Your task to perform on an android device: turn off airplane mode Image 0: 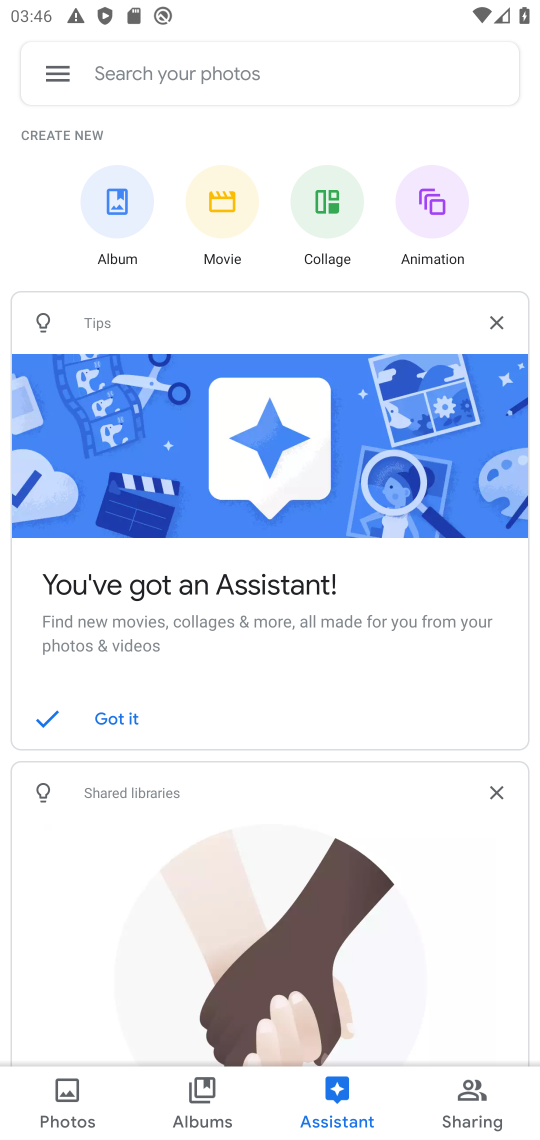
Step 0: press home button
Your task to perform on an android device: turn off airplane mode Image 1: 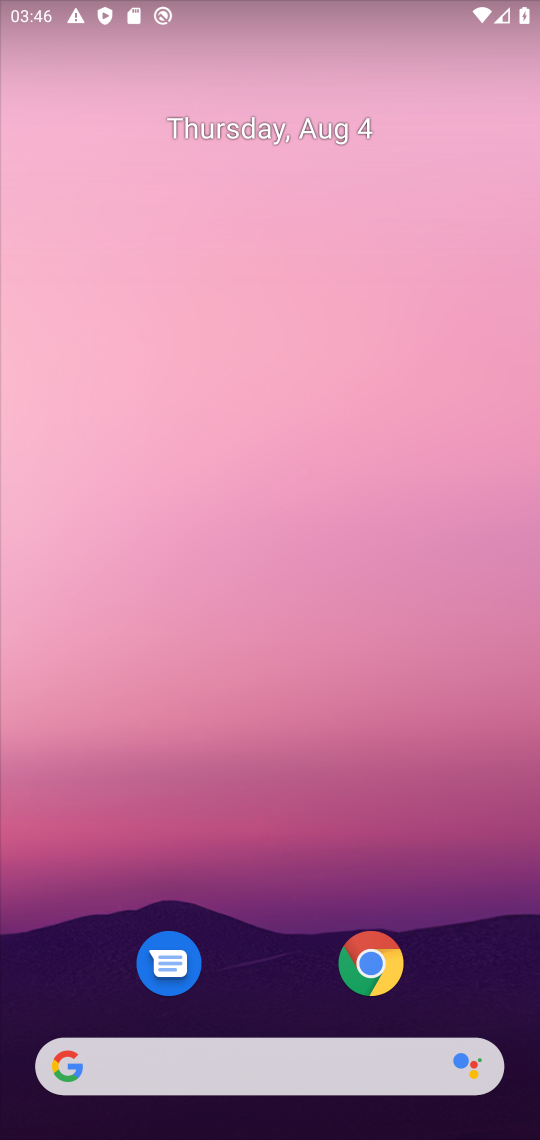
Step 1: drag from (297, 988) to (369, 10)
Your task to perform on an android device: turn off airplane mode Image 2: 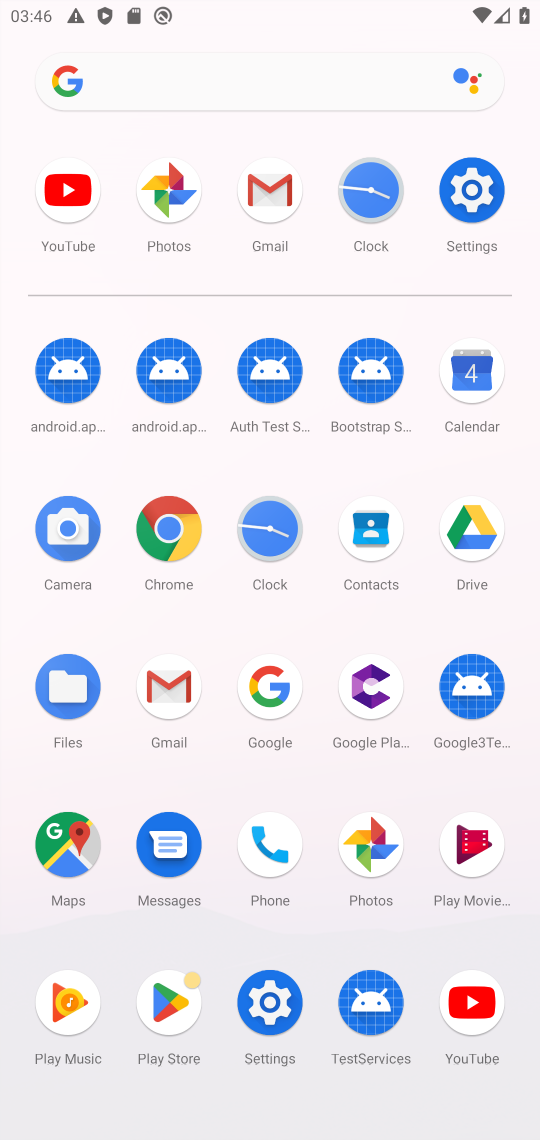
Step 2: click (459, 190)
Your task to perform on an android device: turn off airplane mode Image 3: 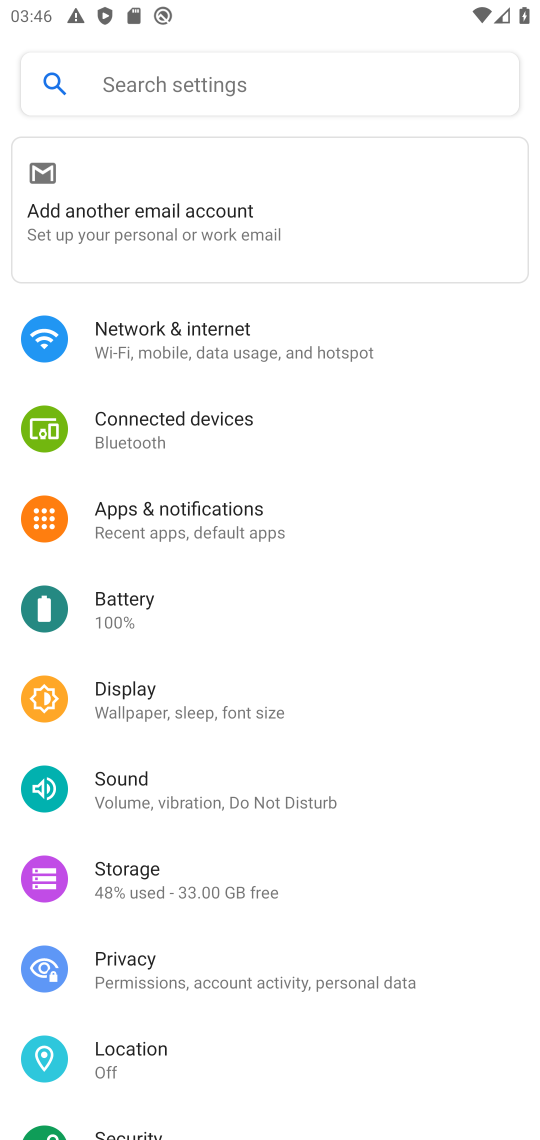
Step 3: click (176, 356)
Your task to perform on an android device: turn off airplane mode Image 4: 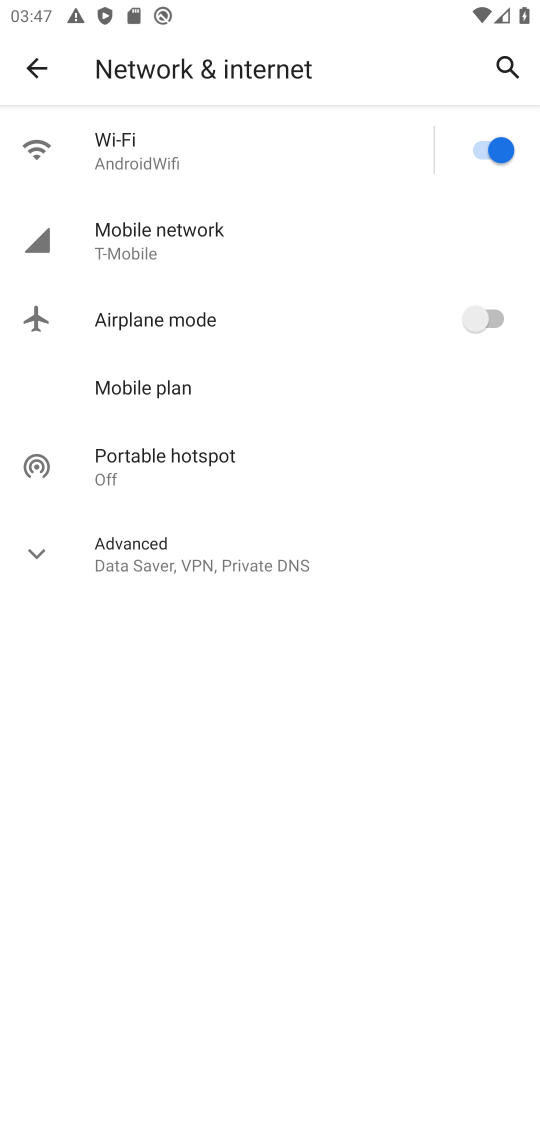
Step 4: task complete